Your task to perform on an android device: toggle pop-ups in chrome Image 0: 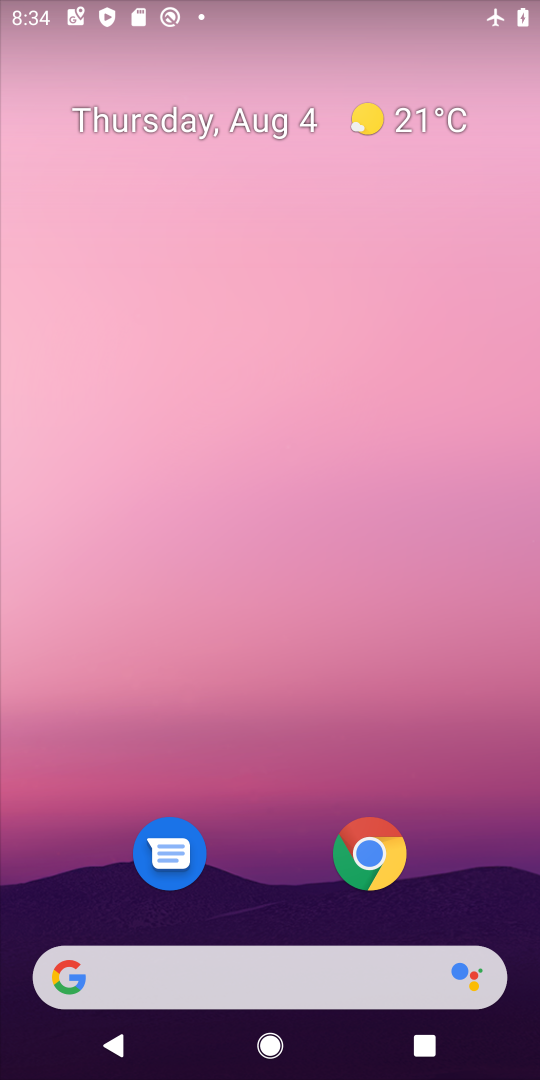
Step 0: click (365, 850)
Your task to perform on an android device: toggle pop-ups in chrome Image 1: 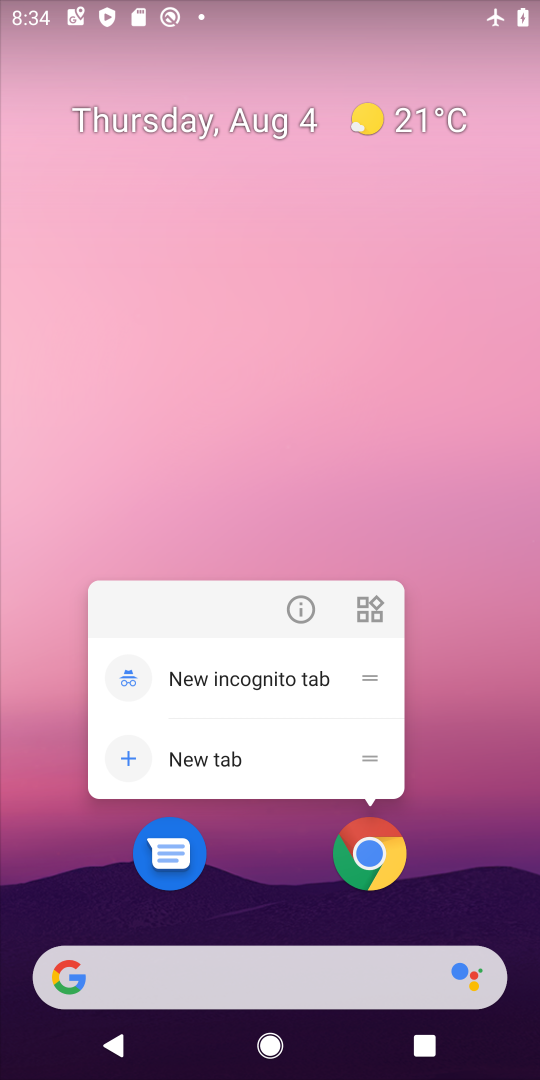
Step 1: click (373, 877)
Your task to perform on an android device: toggle pop-ups in chrome Image 2: 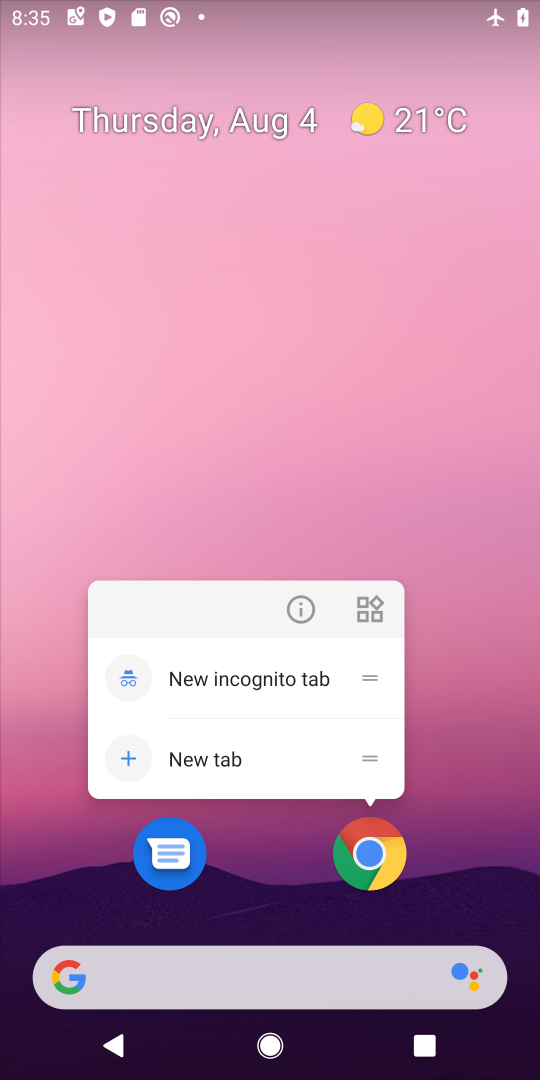
Step 2: click (347, 867)
Your task to perform on an android device: toggle pop-ups in chrome Image 3: 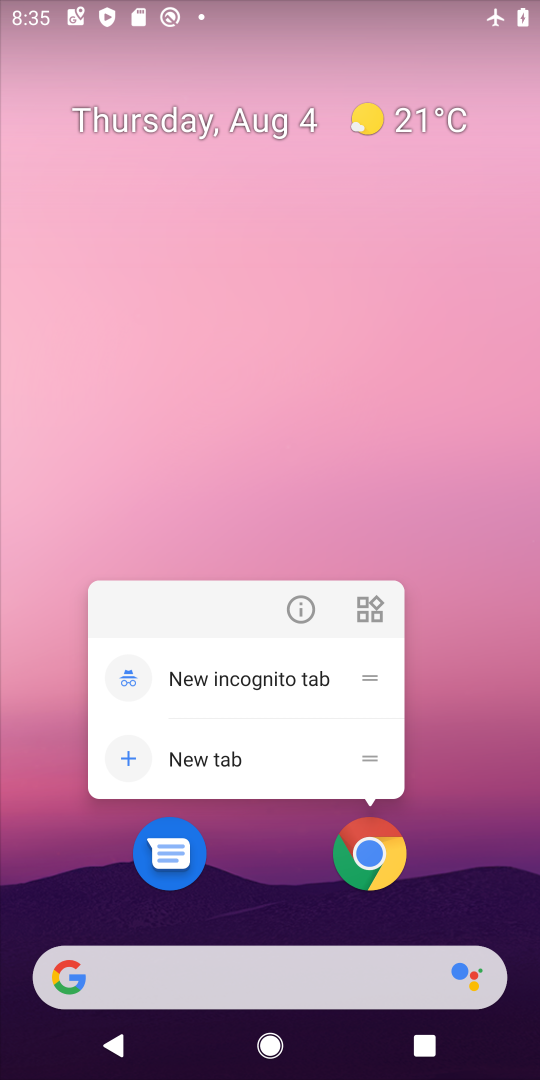
Step 3: click (347, 867)
Your task to perform on an android device: toggle pop-ups in chrome Image 4: 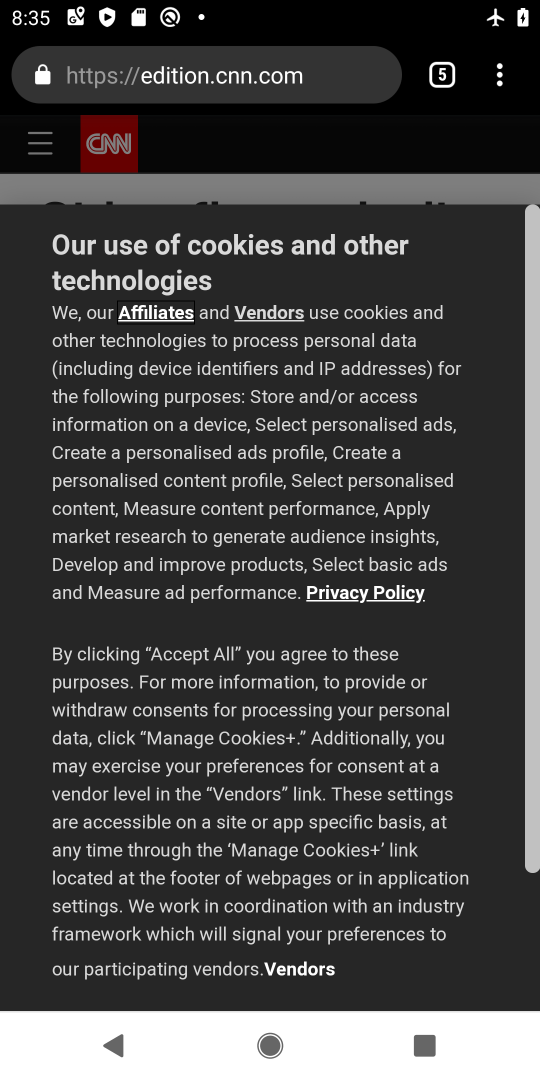
Step 4: click (513, 76)
Your task to perform on an android device: toggle pop-ups in chrome Image 5: 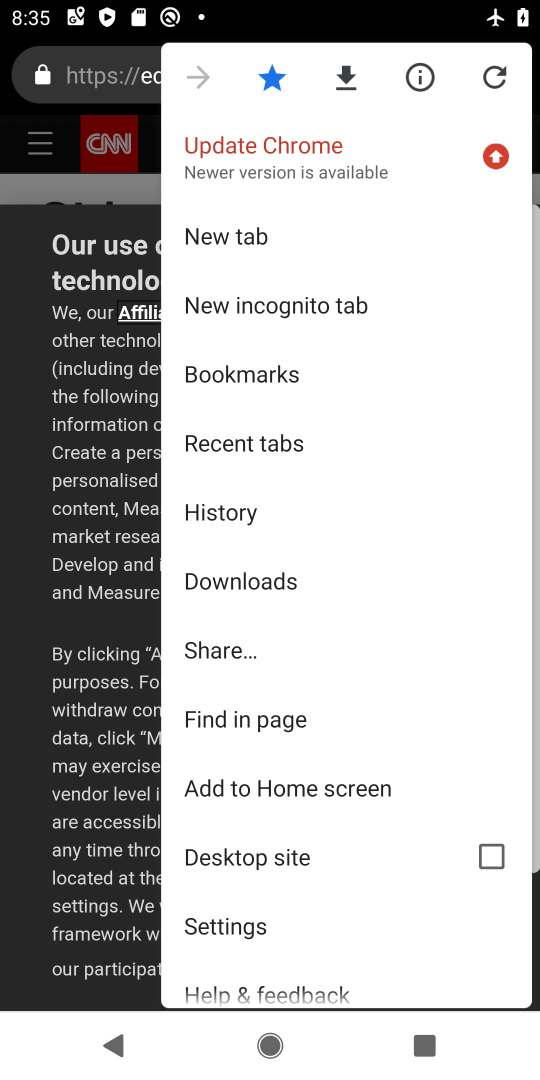
Step 5: click (242, 925)
Your task to perform on an android device: toggle pop-ups in chrome Image 6: 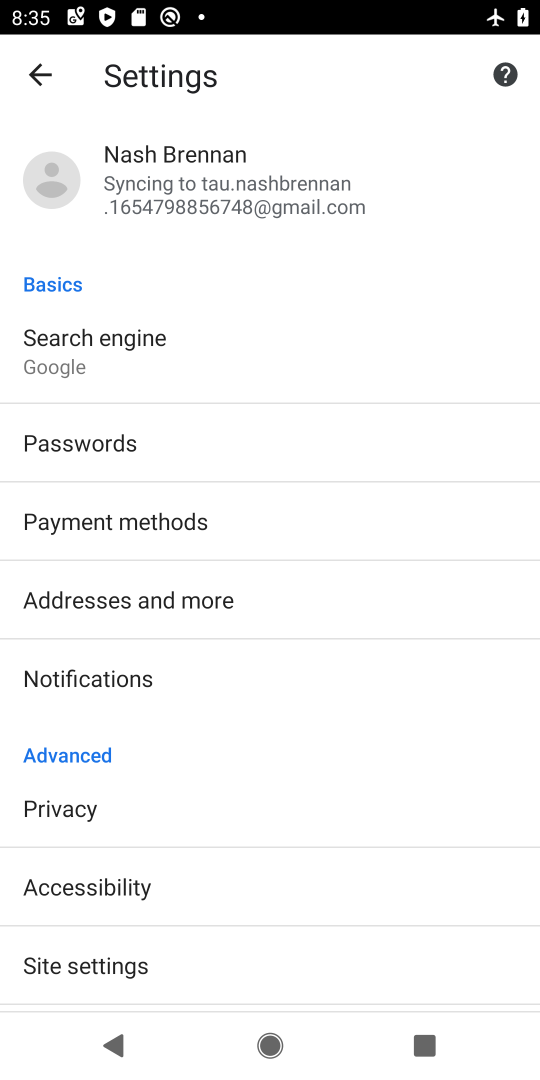
Step 6: click (131, 970)
Your task to perform on an android device: toggle pop-ups in chrome Image 7: 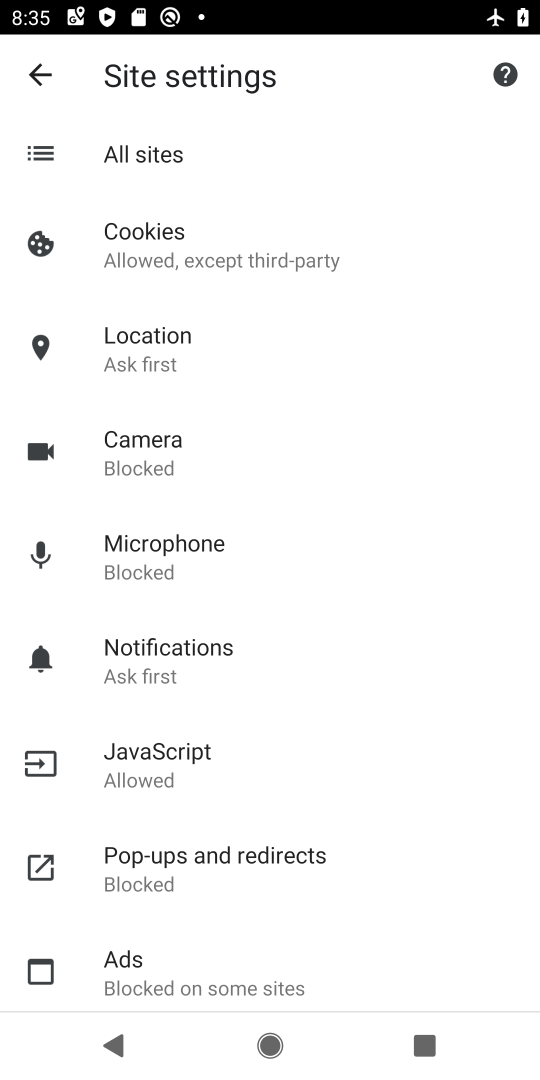
Step 7: click (198, 860)
Your task to perform on an android device: toggle pop-ups in chrome Image 8: 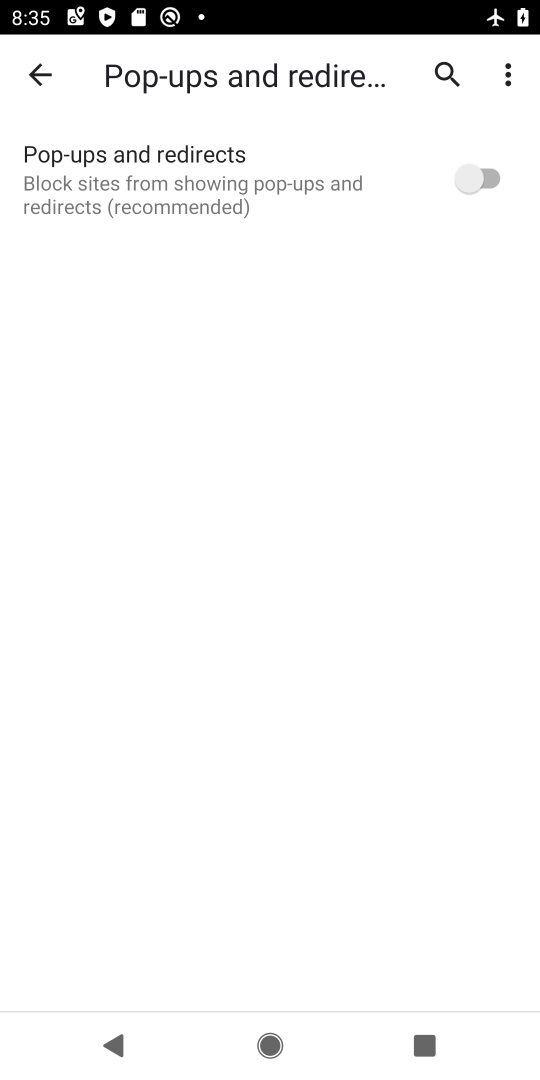
Step 8: click (480, 179)
Your task to perform on an android device: toggle pop-ups in chrome Image 9: 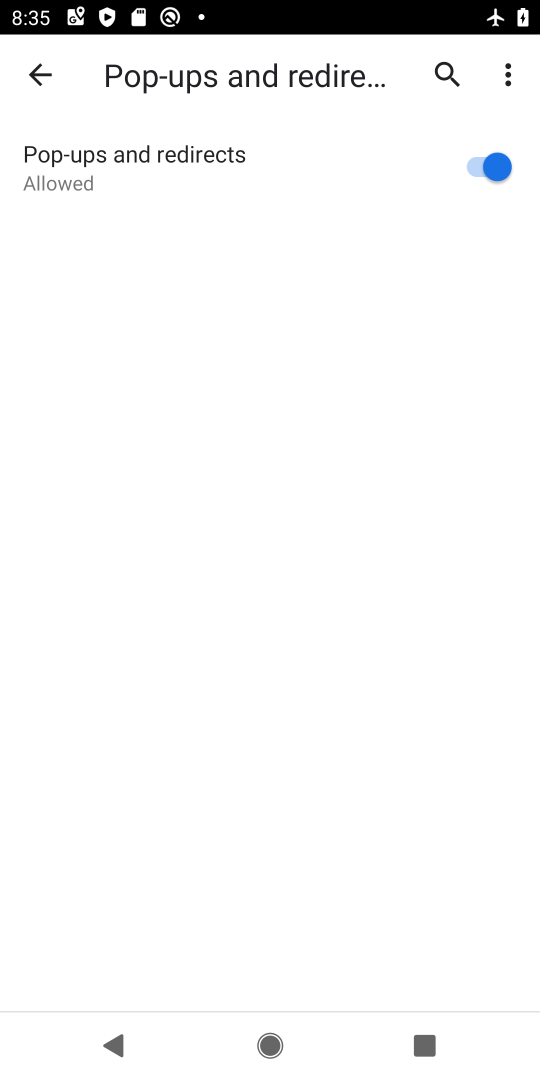
Step 9: task complete